Your task to perform on an android device: open chrome and create a bookmark for the current page Image 0: 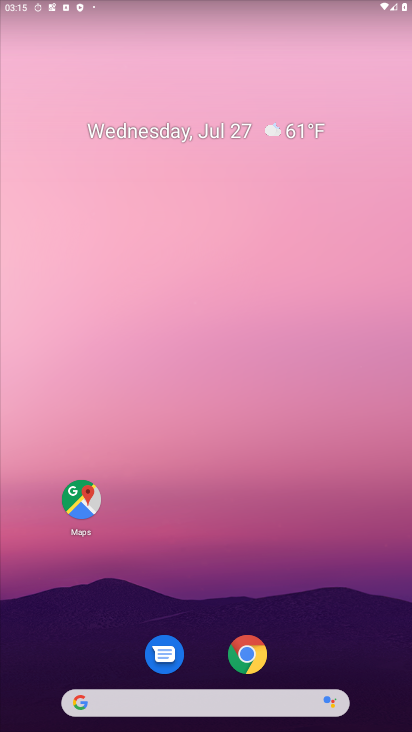
Step 0: drag from (214, 701) to (242, 70)
Your task to perform on an android device: open chrome and create a bookmark for the current page Image 1: 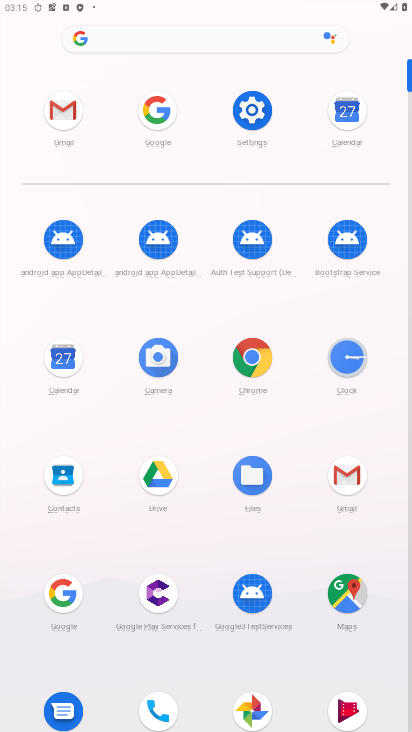
Step 1: click (253, 369)
Your task to perform on an android device: open chrome and create a bookmark for the current page Image 2: 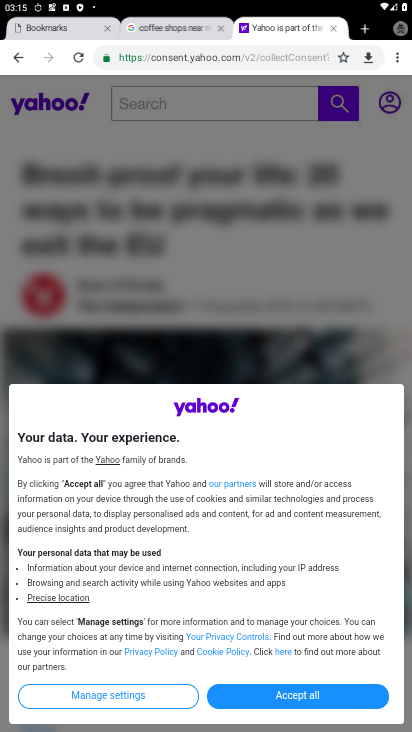
Step 2: click (344, 58)
Your task to perform on an android device: open chrome and create a bookmark for the current page Image 3: 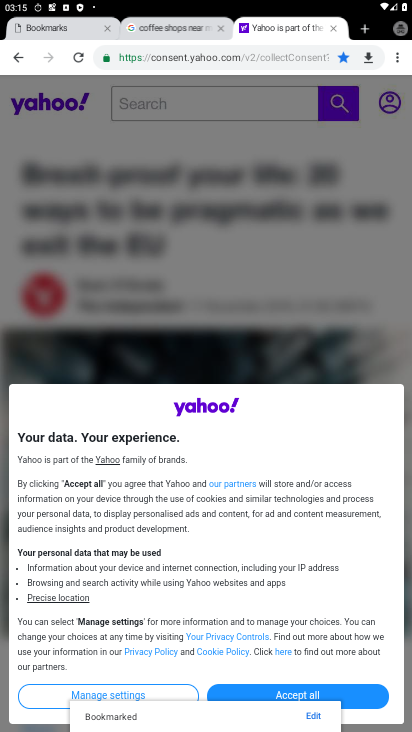
Step 3: task complete